Your task to perform on an android device: Search for Mexican restaurants on Maps Image 0: 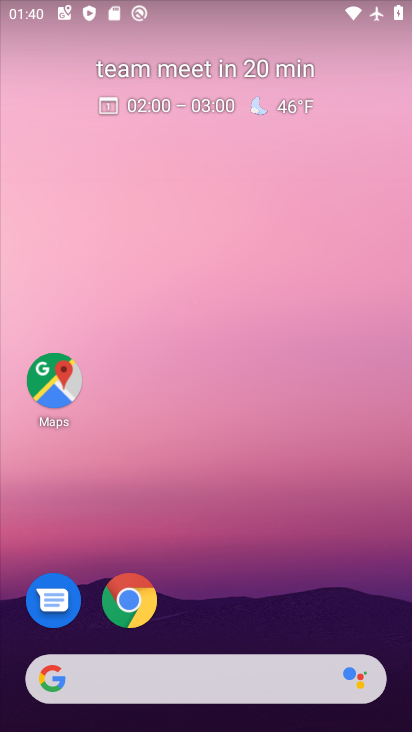
Step 0: drag from (214, 637) to (171, 6)
Your task to perform on an android device: Search for Mexican restaurants on Maps Image 1: 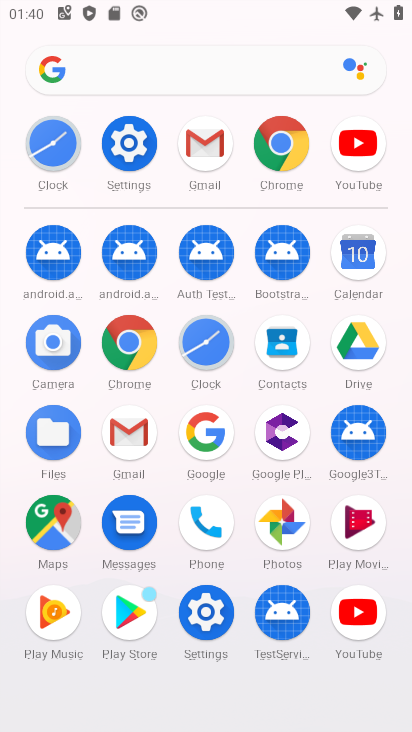
Step 1: click (58, 523)
Your task to perform on an android device: Search for Mexican restaurants on Maps Image 2: 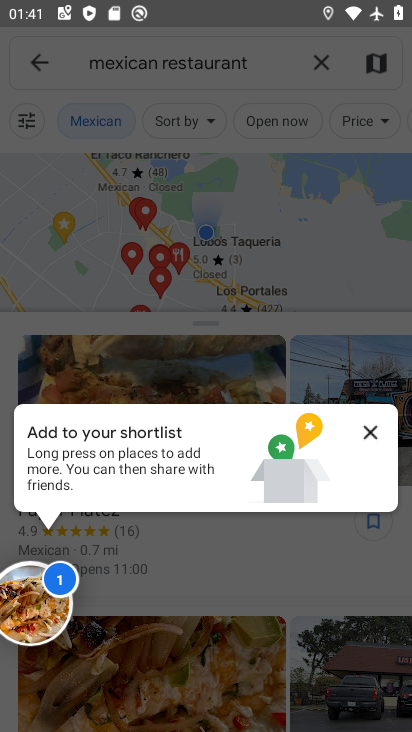
Step 2: task complete